Your task to perform on an android device: Open Google Image 0: 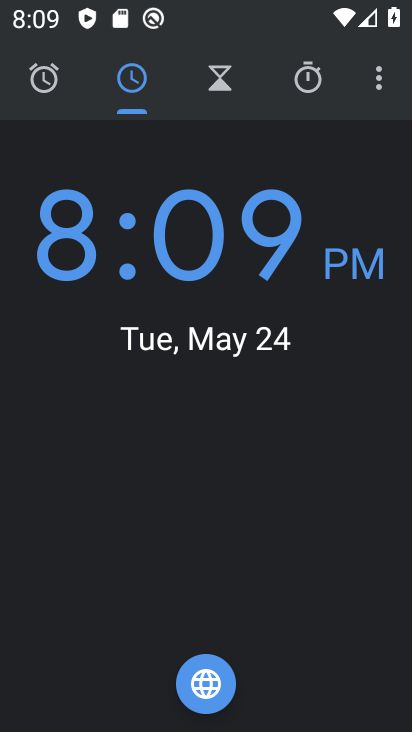
Step 0: press home button
Your task to perform on an android device: Open Google Image 1: 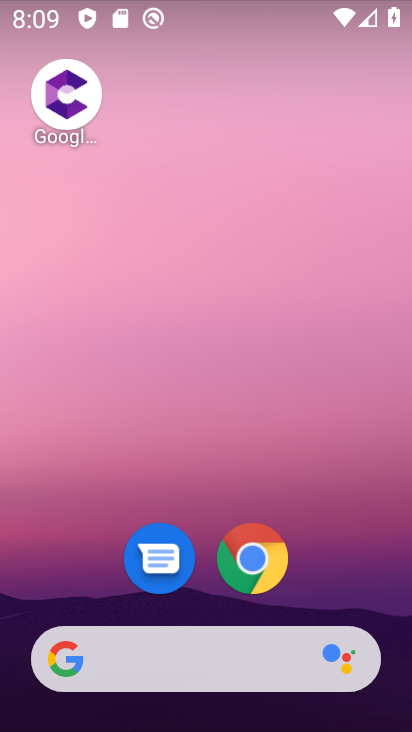
Step 1: drag from (203, 607) to (223, 201)
Your task to perform on an android device: Open Google Image 2: 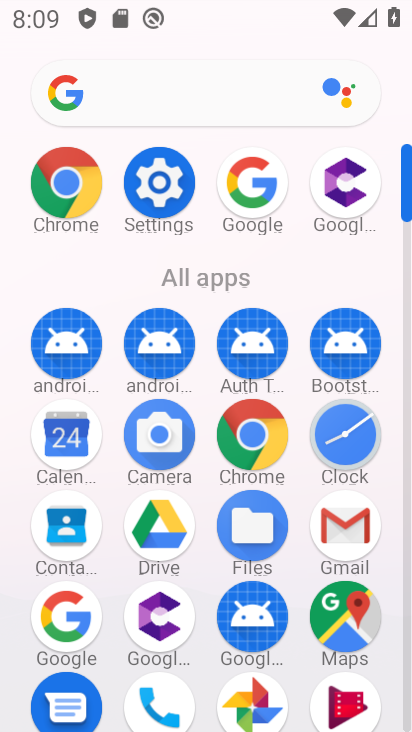
Step 2: click (237, 211)
Your task to perform on an android device: Open Google Image 3: 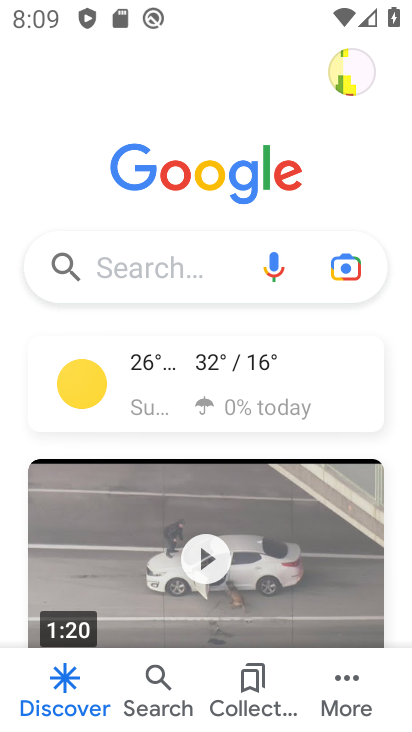
Step 3: task complete